Your task to perform on an android device: Go to settings Image 0: 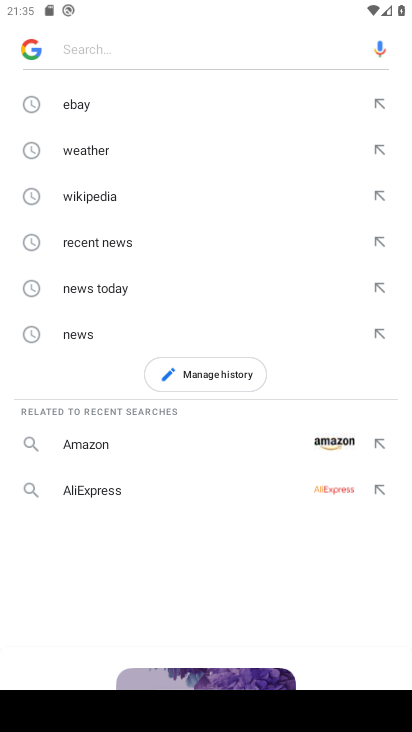
Step 0: press home button
Your task to perform on an android device: Go to settings Image 1: 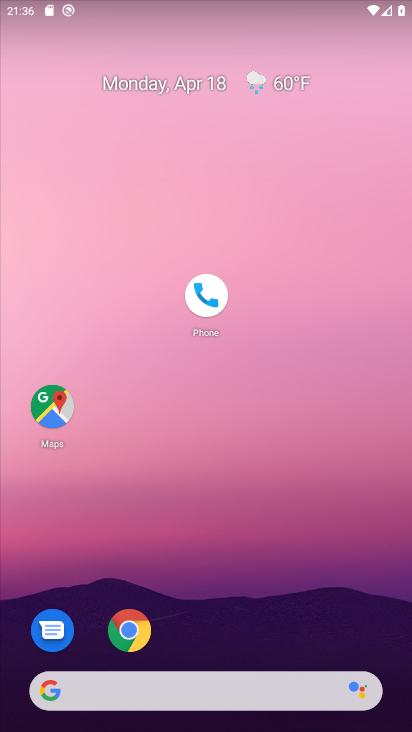
Step 1: drag from (294, 637) to (351, 161)
Your task to perform on an android device: Go to settings Image 2: 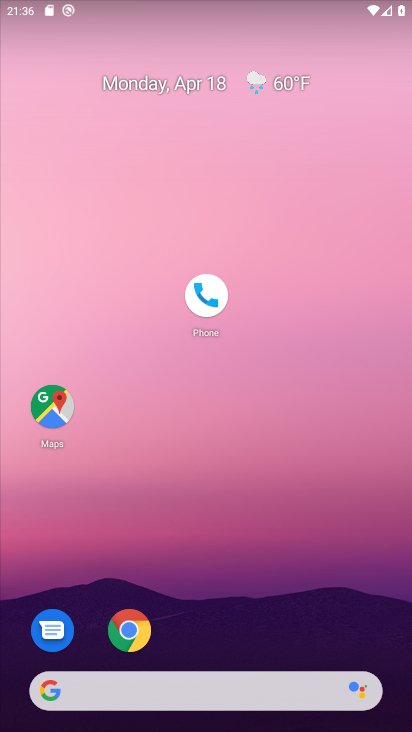
Step 2: drag from (315, 619) to (291, 81)
Your task to perform on an android device: Go to settings Image 3: 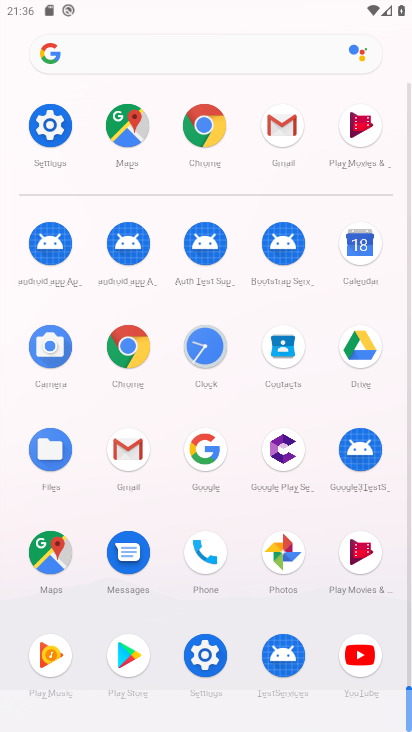
Step 3: click (202, 657)
Your task to perform on an android device: Go to settings Image 4: 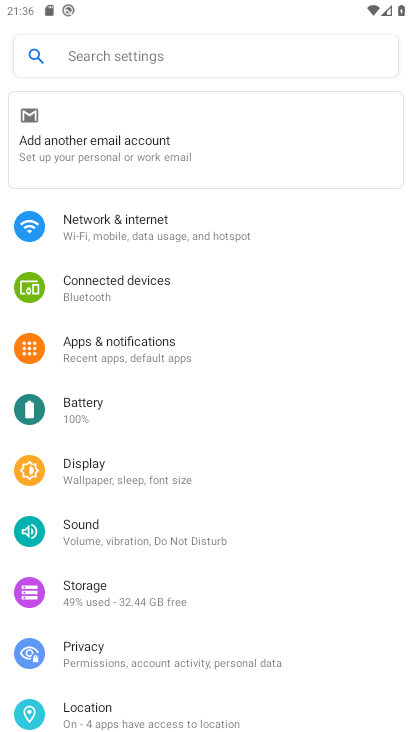
Step 4: task complete